Your task to perform on an android device: turn on sleep mode Image 0: 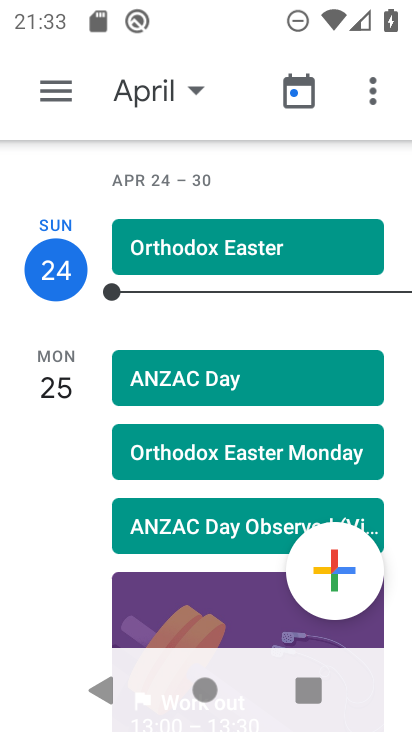
Step 0: press home button
Your task to perform on an android device: turn on sleep mode Image 1: 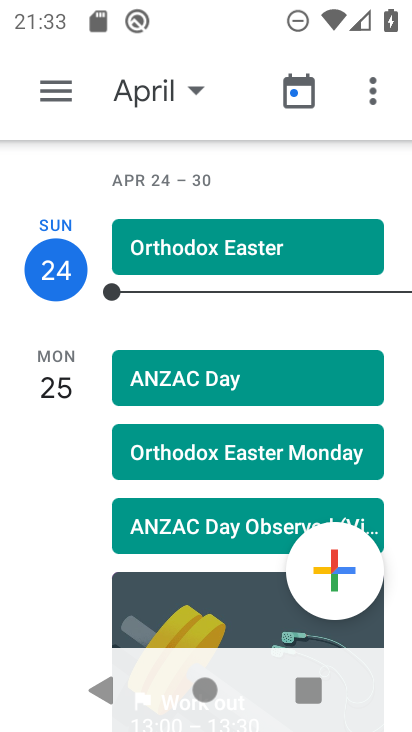
Step 1: press home button
Your task to perform on an android device: turn on sleep mode Image 2: 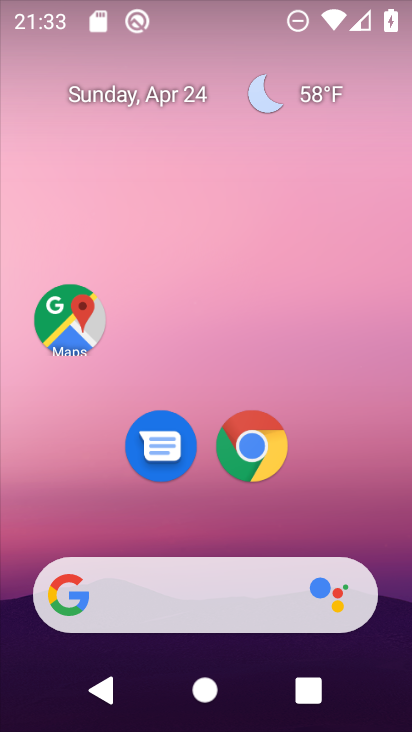
Step 2: drag from (135, 595) to (282, 102)
Your task to perform on an android device: turn on sleep mode Image 3: 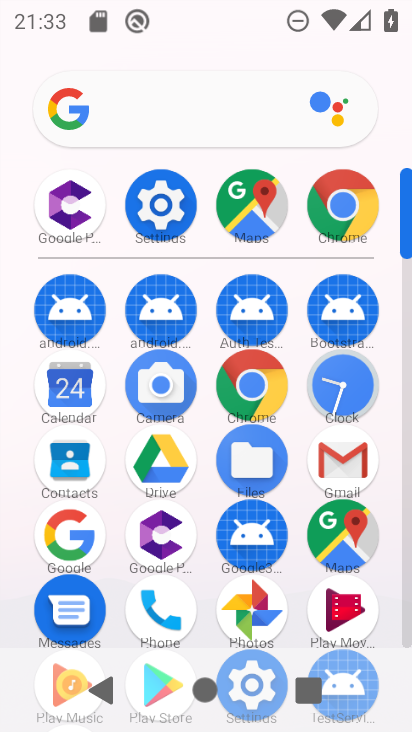
Step 3: click (175, 199)
Your task to perform on an android device: turn on sleep mode Image 4: 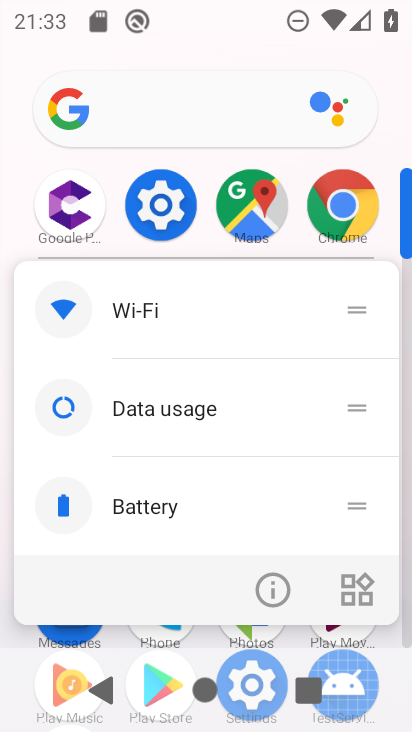
Step 4: click (160, 204)
Your task to perform on an android device: turn on sleep mode Image 5: 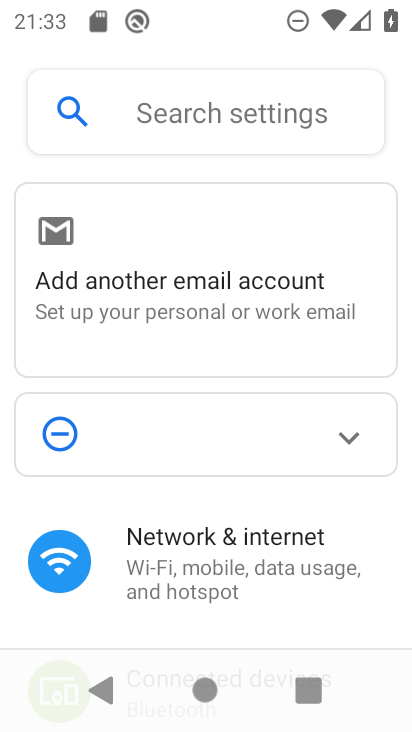
Step 5: drag from (234, 543) to (331, 114)
Your task to perform on an android device: turn on sleep mode Image 6: 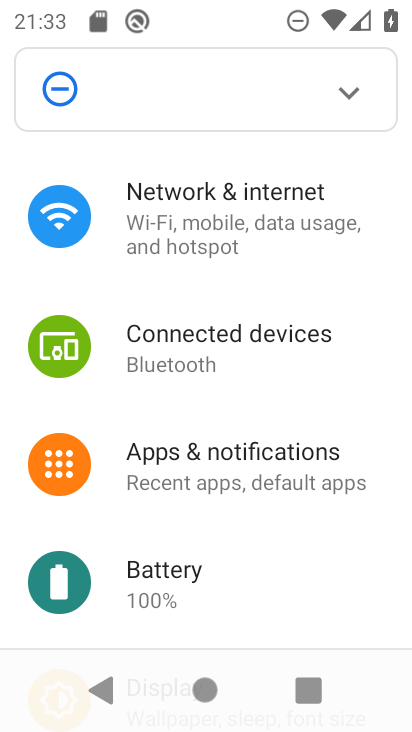
Step 6: drag from (243, 555) to (286, 190)
Your task to perform on an android device: turn on sleep mode Image 7: 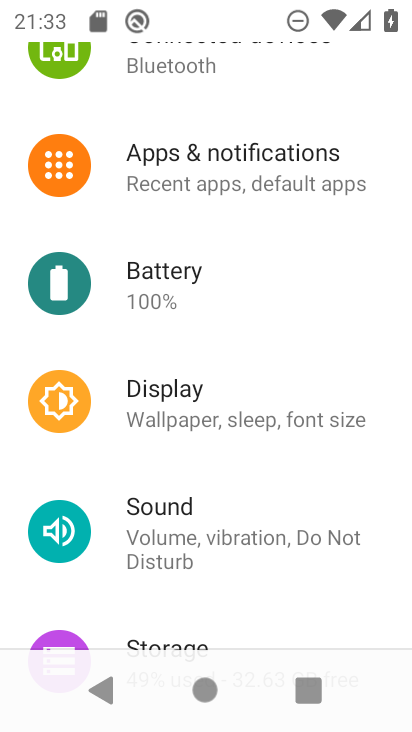
Step 7: click (174, 407)
Your task to perform on an android device: turn on sleep mode Image 8: 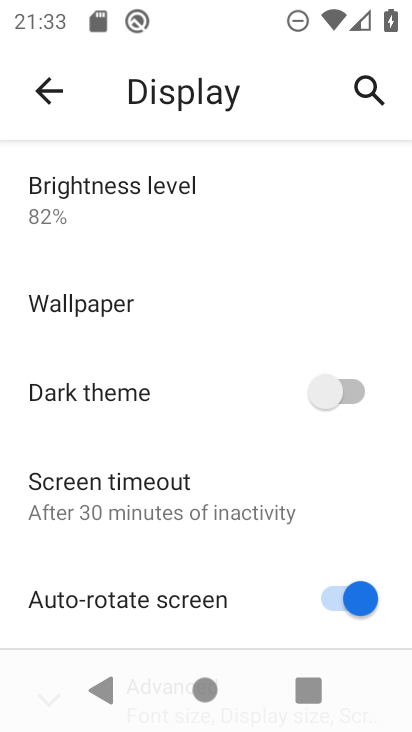
Step 8: task complete